Your task to perform on an android device: all mails in gmail Image 0: 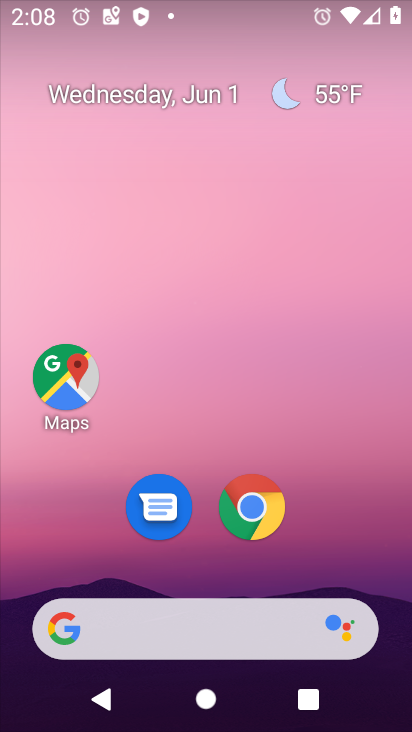
Step 0: drag from (340, 584) to (332, 7)
Your task to perform on an android device: all mails in gmail Image 1: 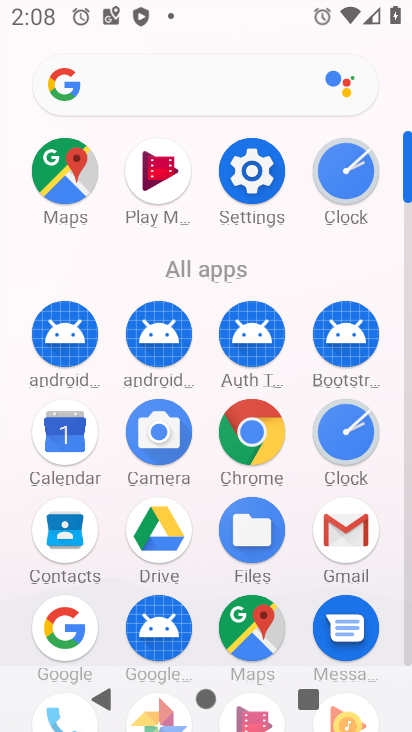
Step 1: click (347, 528)
Your task to perform on an android device: all mails in gmail Image 2: 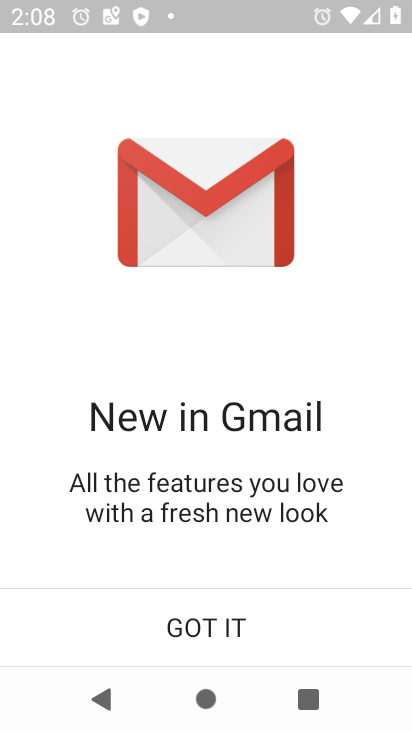
Step 2: click (189, 627)
Your task to perform on an android device: all mails in gmail Image 3: 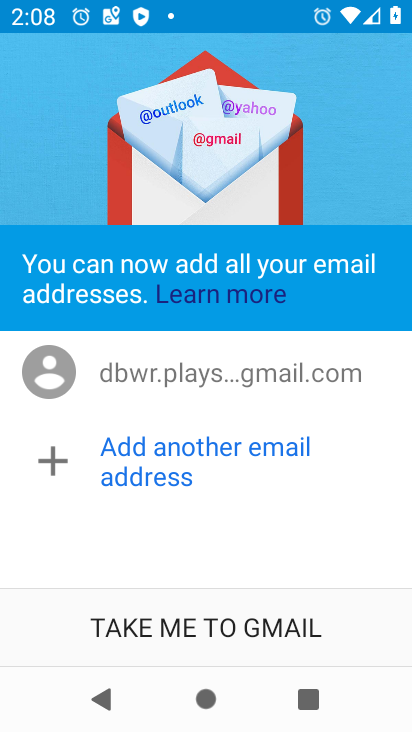
Step 3: click (189, 627)
Your task to perform on an android device: all mails in gmail Image 4: 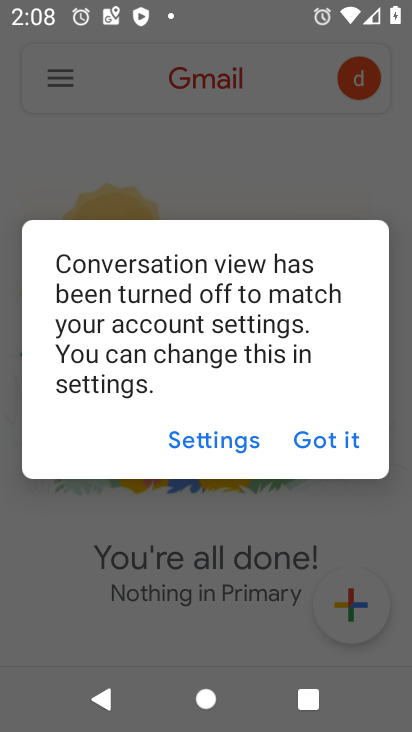
Step 4: click (299, 442)
Your task to perform on an android device: all mails in gmail Image 5: 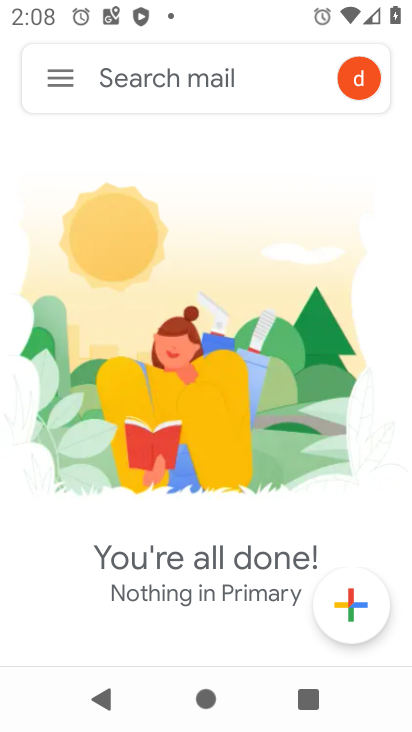
Step 5: click (52, 77)
Your task to perform on an android device: all mails in gmail Image 6: 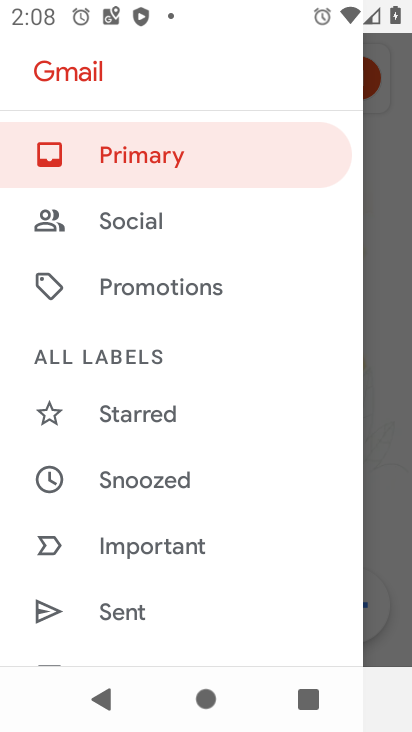
Step 6: drag from (212, 562) to (212, 306)
Your task to perform on an android device: all mails in gmail Image 7: 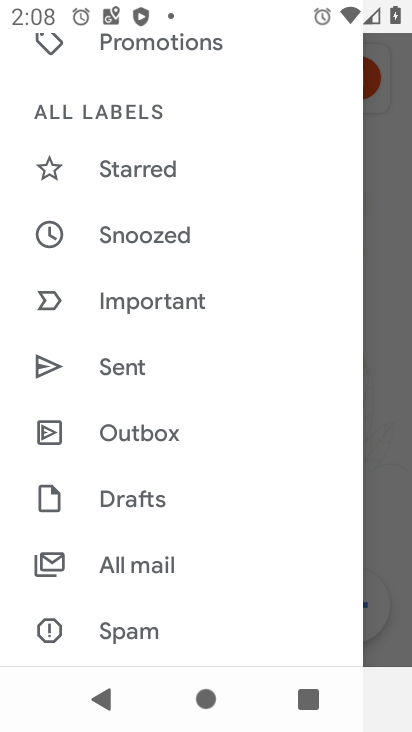
Step 7: click (134, 570)
Your task to perform on an android device: all mails in gmail Image 8: 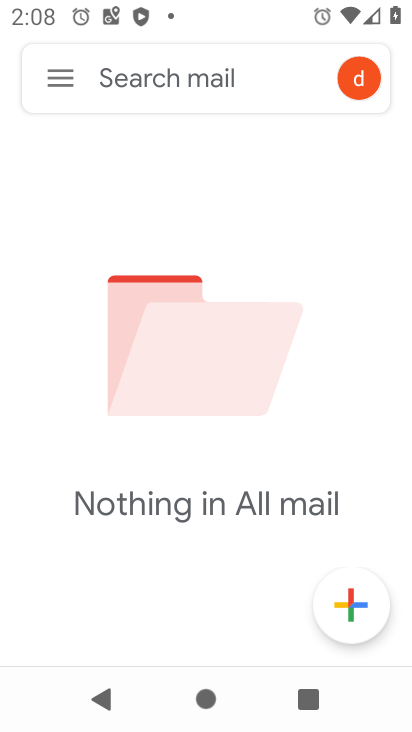
Step 8: task complete